Your task to perform on an android device: search for starred emails in the gmail app Image 0: 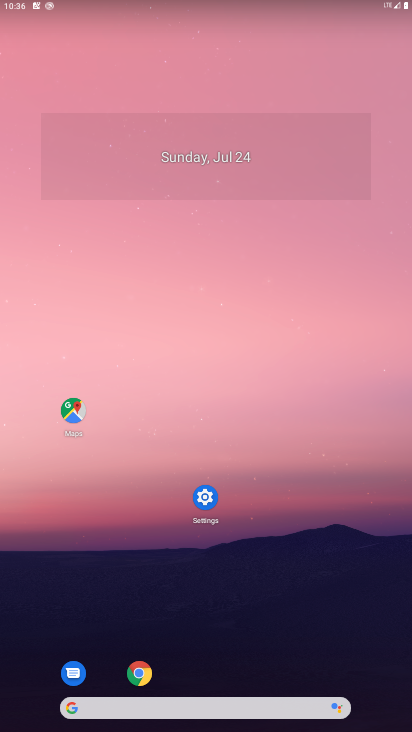
Step 0: drag from (270, 583) to (337, 182)
Your task to perform on an android device: search for starred emails in the gmail app Image 1: 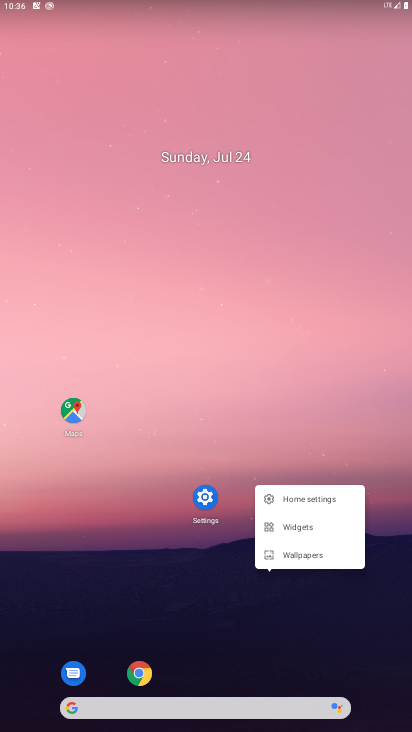
Step 1: click (235, 326)
Your task to perform on an android device: search for starred emails in the gmail app Image 2: 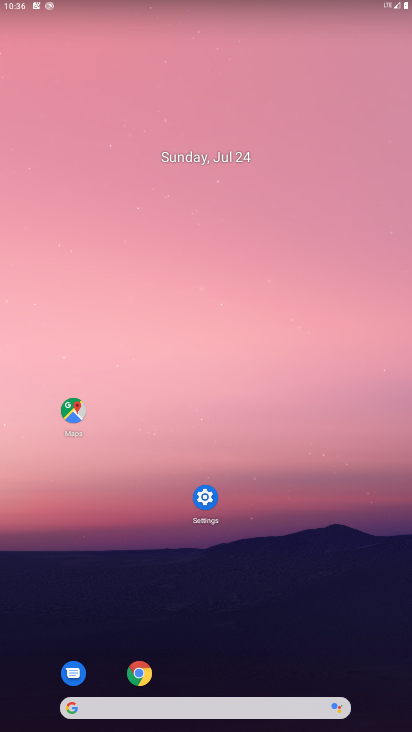
Step 2: drag from (323, 607) to (309, 282)
Your task to perform on an android device: search for starred emails in the gmail app Image 3: 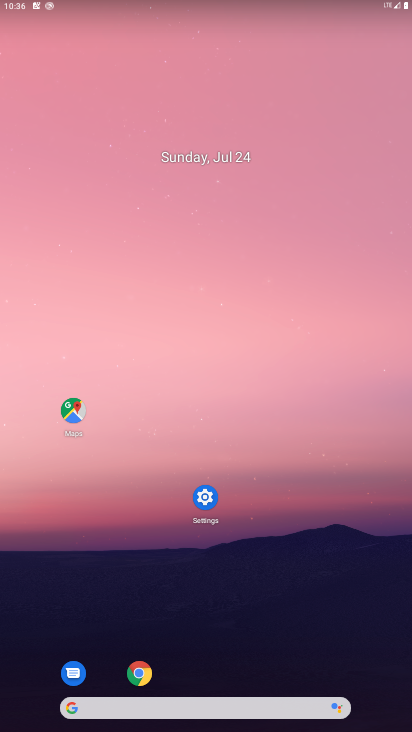
Step 3: drag from (302, 503) to (313, 86)
Your task to perform on an android device: search for starred emails in the gmail app Image 4: 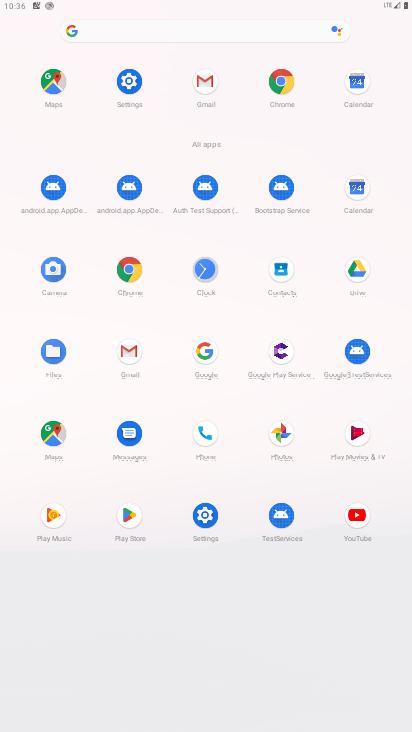
Step 4: click (130, 346)
Your task to perform on an android device: search for starred emails in the gmail app Image 5: 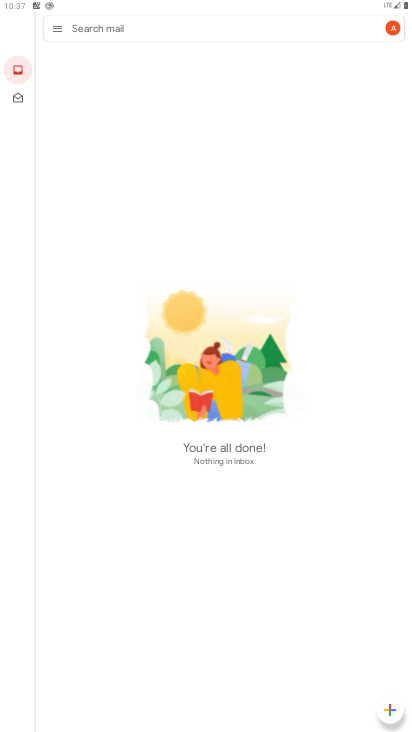
Step 5: click (56, 26)
Your task to perform on an android device: search for starred emails in the gmail app Image 6: 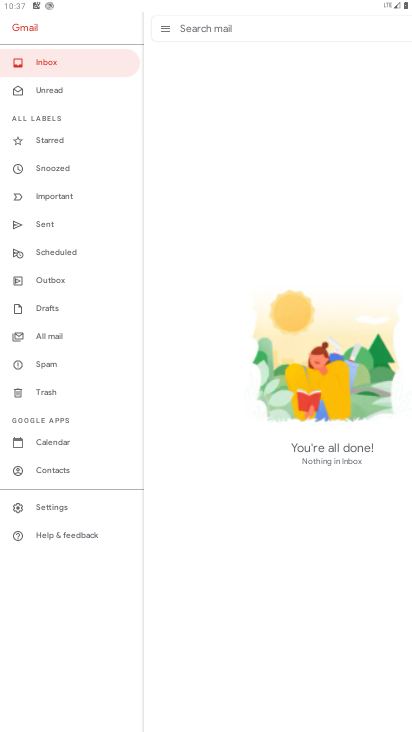
Step 6: click (47, 140)
Your task to perform on an android device: search for starred emails in the gmail app Image 7: 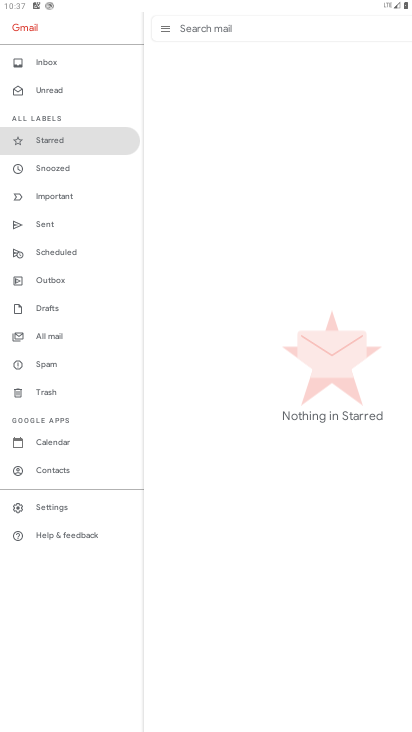
Step 7: task complete